Your task to perform on an android device: Open accessibility settings Image 0: 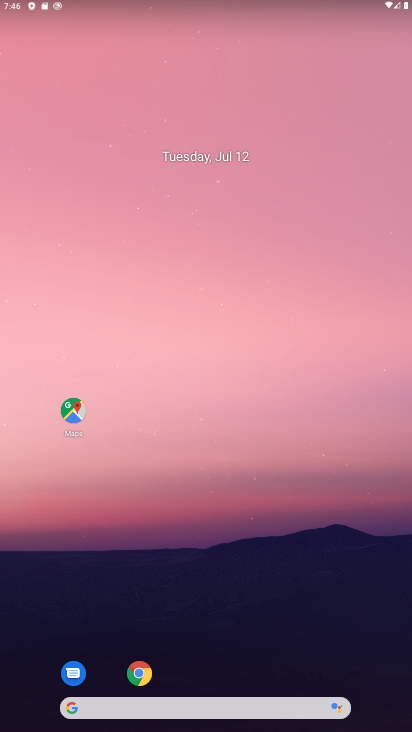
Step 0: drag from (206, 708) to (256, 151)
Your task to perform on an android device: Open accessibility settings Image 1: 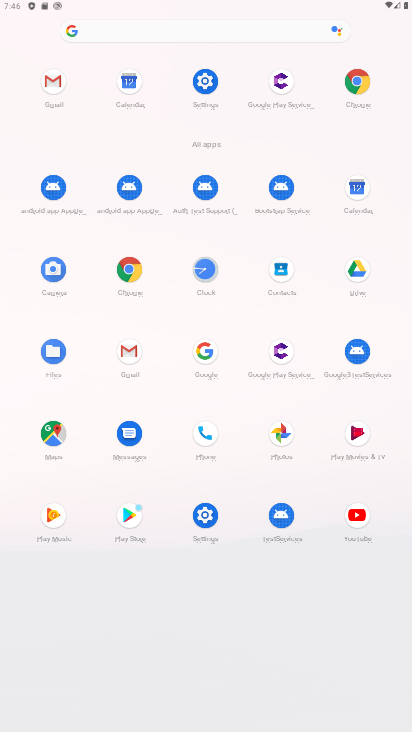
Step 1: click (206, 81)
Your task to perform on an android device: Open accessibility settings Image 2: 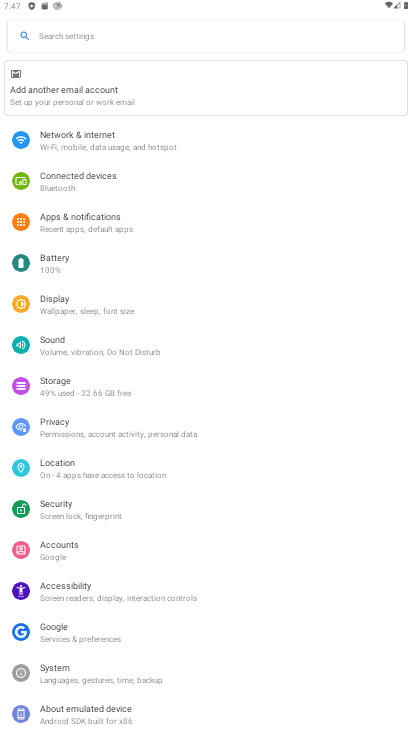
Step 2: click (74, 591)
Your task to perform on an android device: Open accessibility settings Image 3: 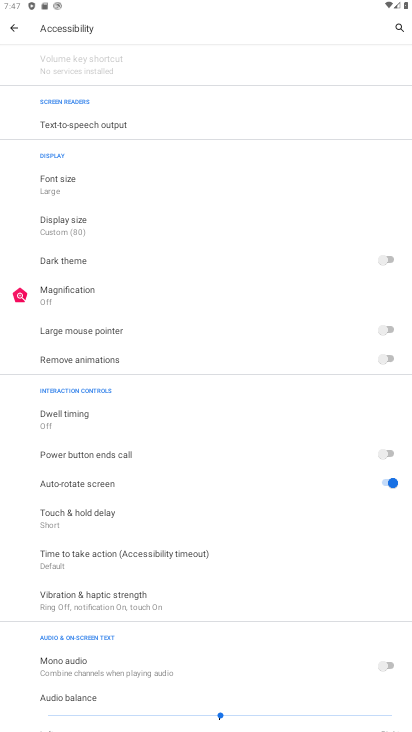
Step 3: task complete